Your task to perform on an android device: turn notification dots off Image 0: 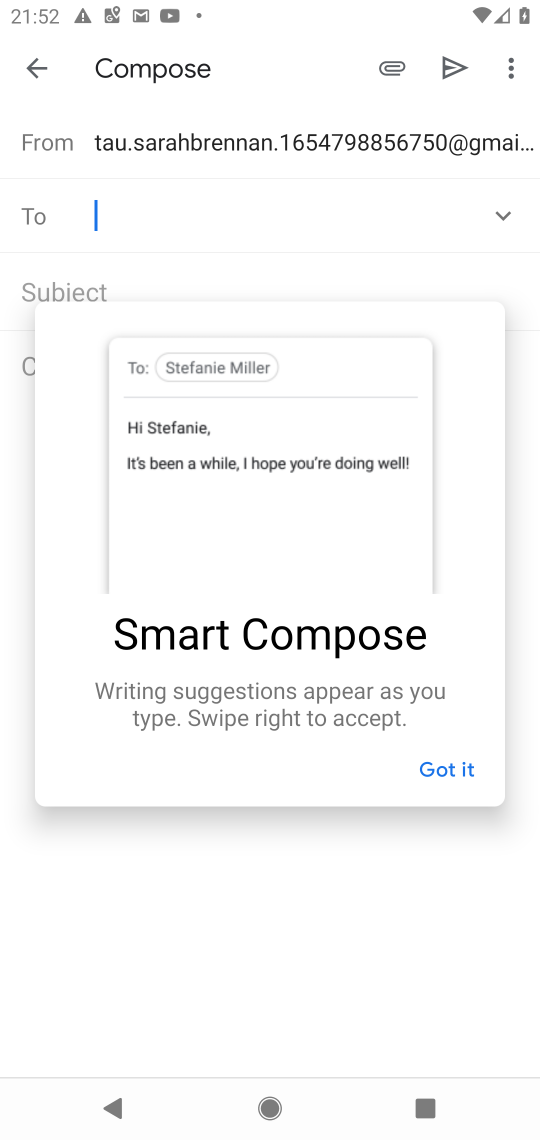
Step 0: press home button
Your task to perform on an android device: turn notification dots off Image 1: 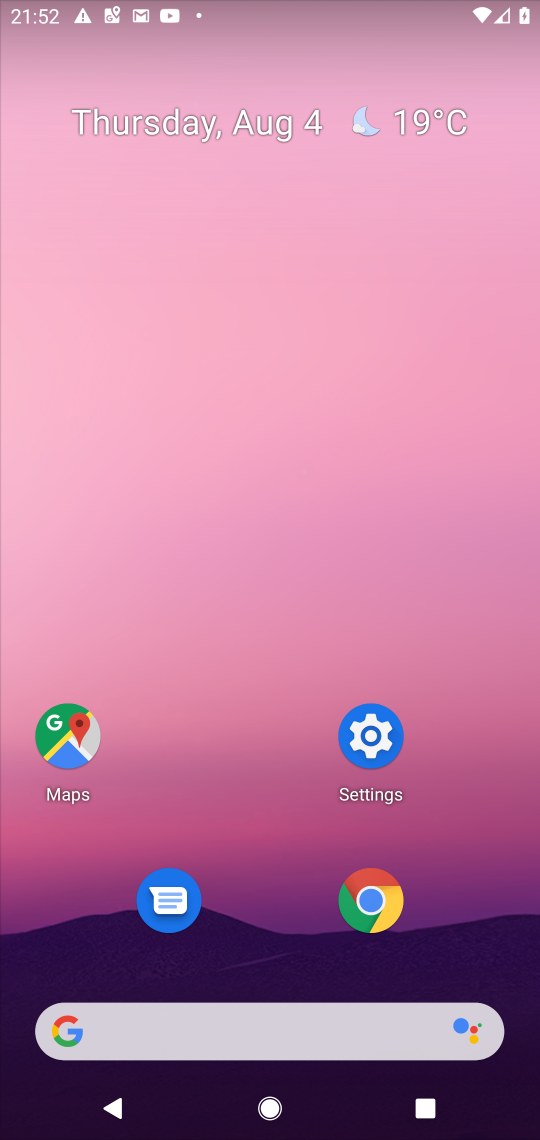
Step 1: click (378, 741)
Your task to perform on an android device: turn notification dots off Image 2: 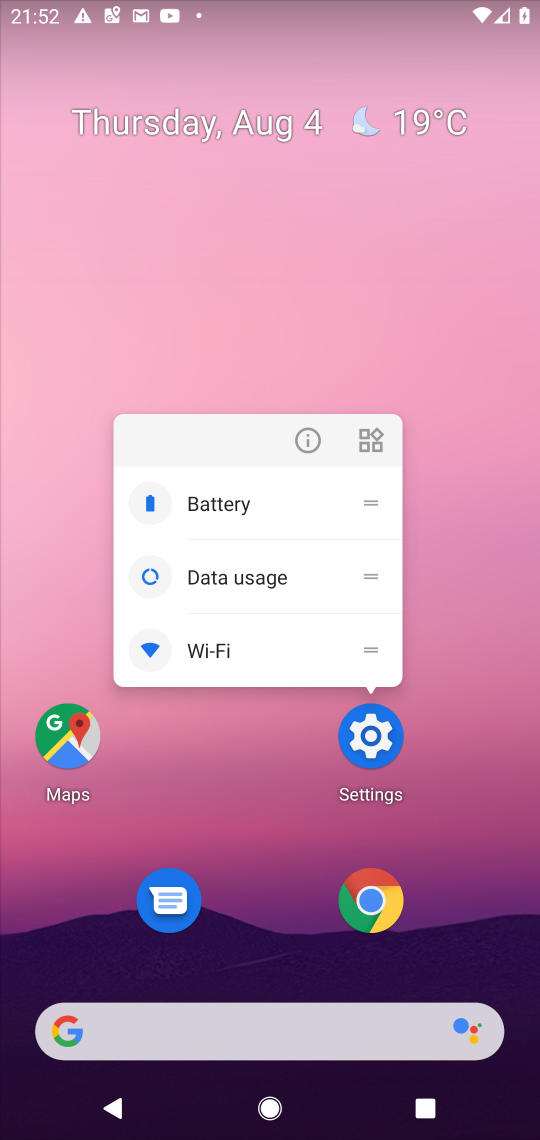
Step 2: click (365, 737)
Your task to perform on an android device: turn notification dots off Image 3: 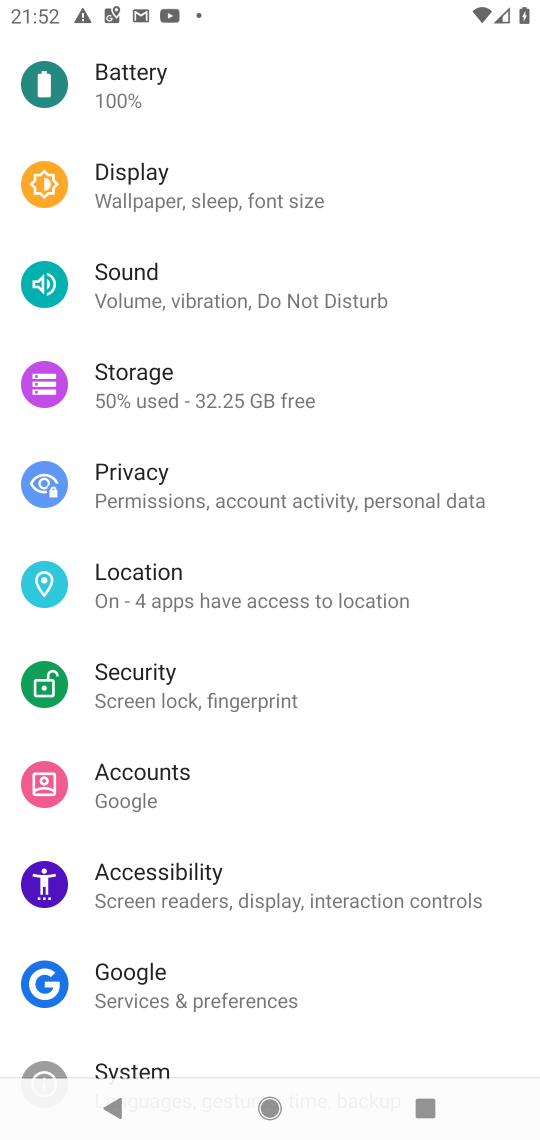
Step 3: drag from (360, 354) to (337, 895)
Your task to perform on an android device: turn notification dots off Image 4: 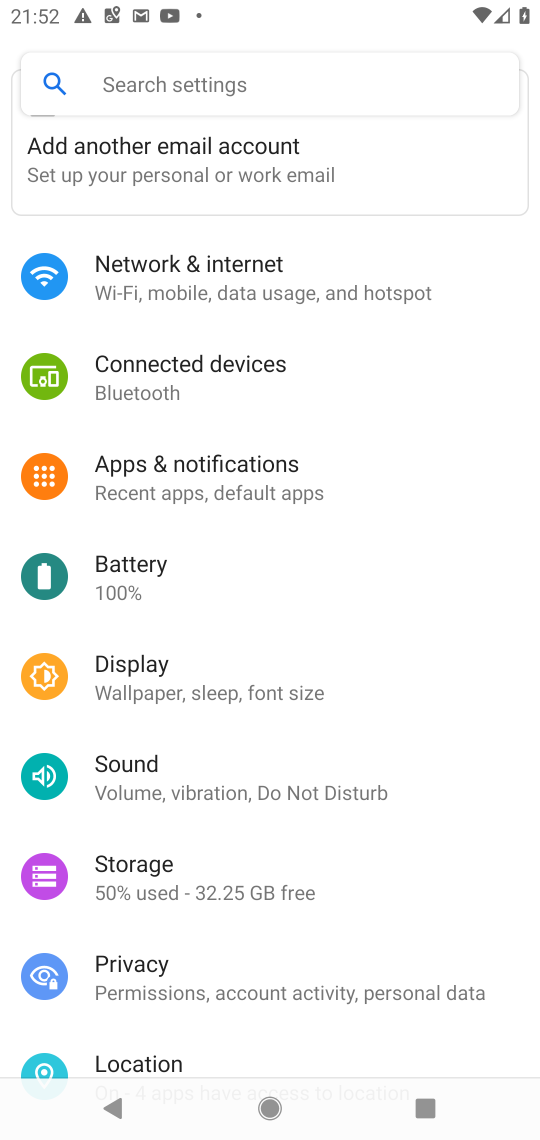
Step 4: click (257, 474)
Your task to perform on an android device: turn notification dots off Image 5: 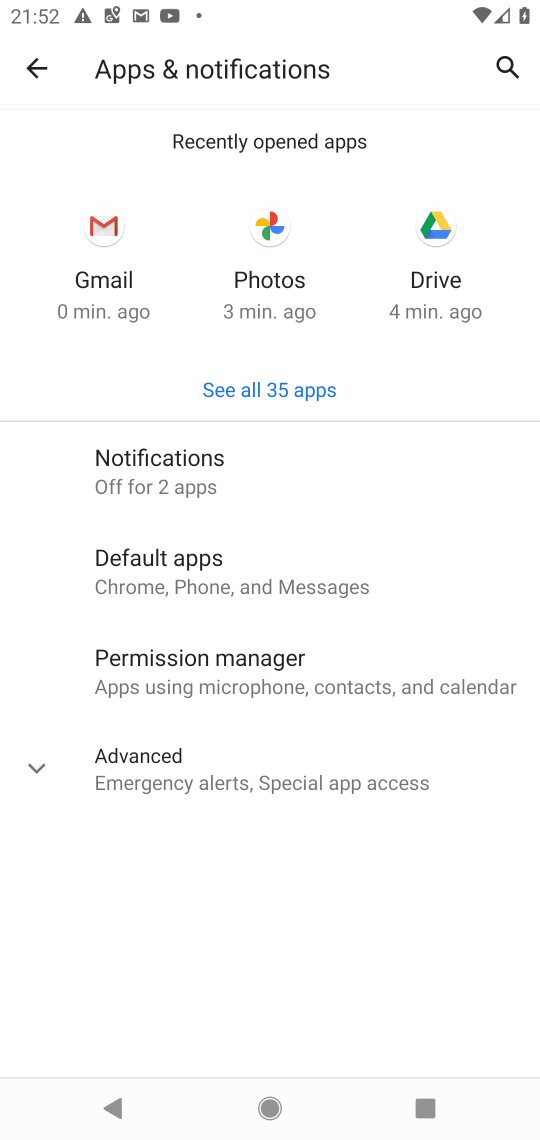
Step 5: click (236, 484)
Your task to perform on an android device: turn notification dots off Image 6: 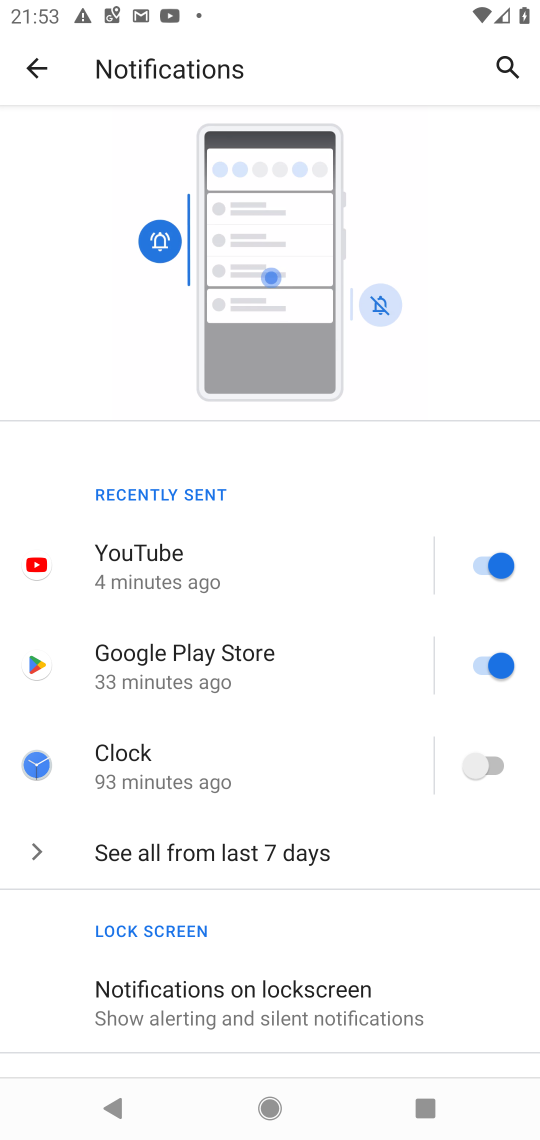
Step 6: drag from (234, 1012) to (428, 448)
Your task to perform on an android device: turn notification dots off Image 7: 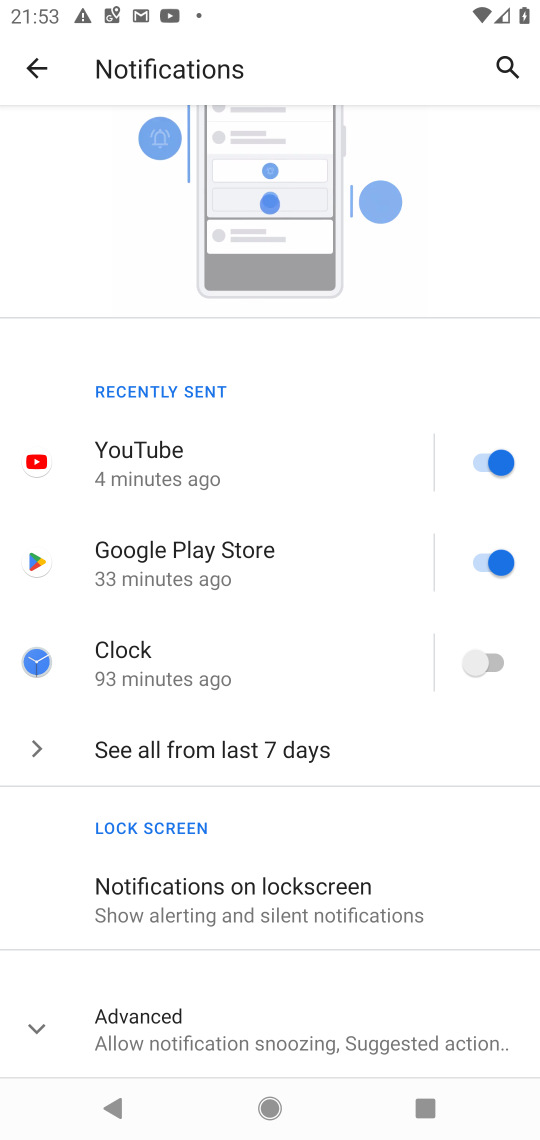
Step 7: click (175, 1009)
Your task to perform on an android device: turn notification dots off Image 8: 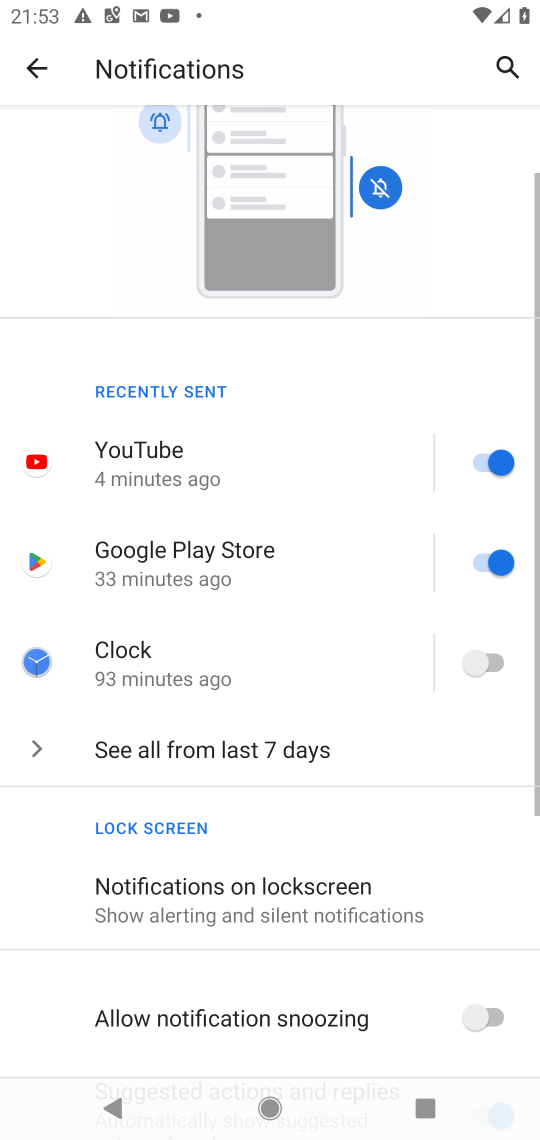
Step 8: drag from (223, 1020) to (538, 210)
Your task to perform on an android device: turn notification dots off Image 9: 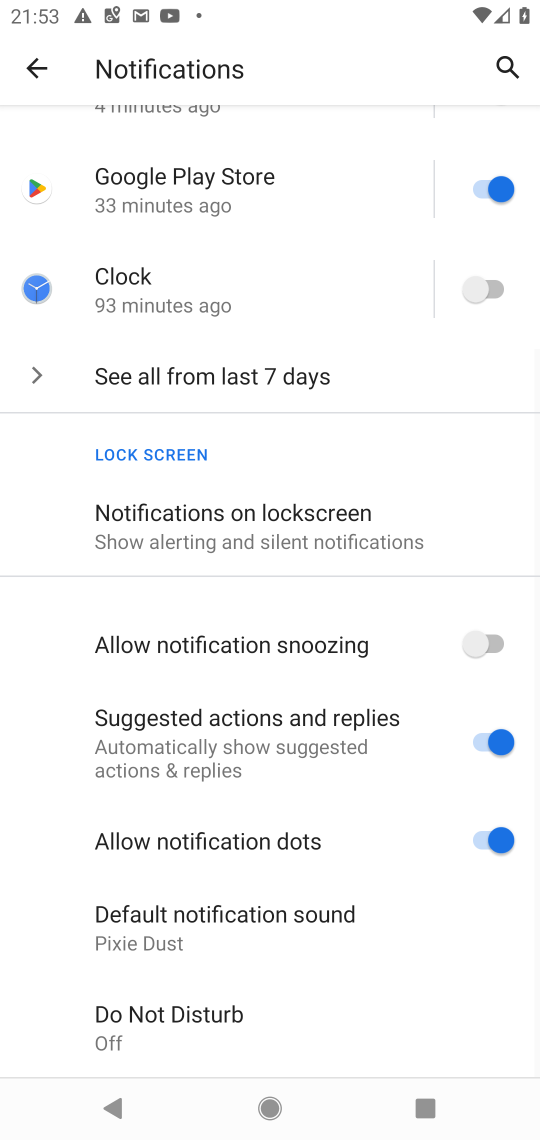
Step 9: click (485, 831)
Your task to perform on an android device: turn notification dots off Image 10: 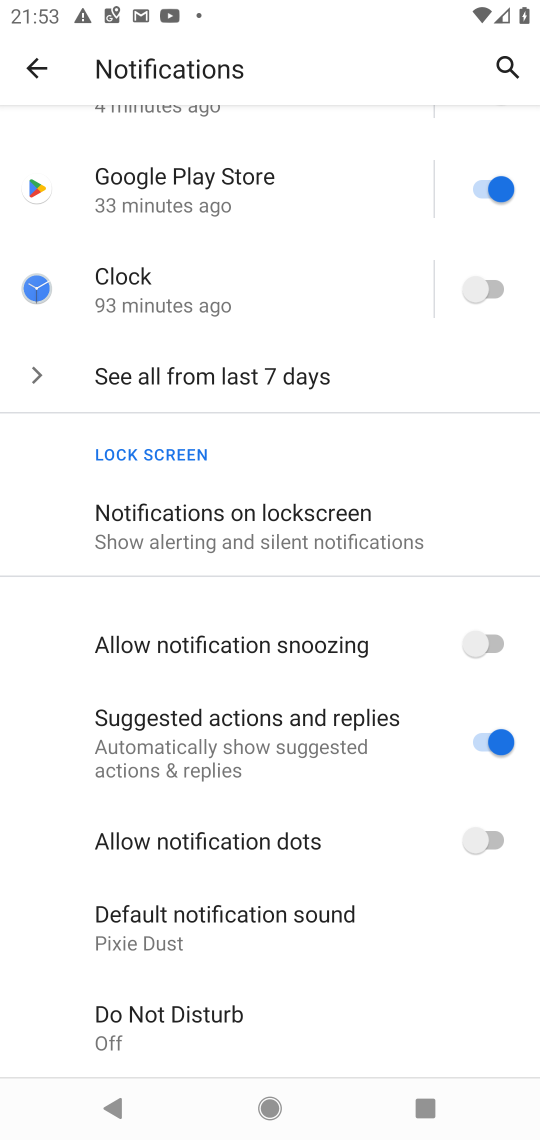
Step 10: task complete